Your task to perform on an android device: Open maps Image 0: 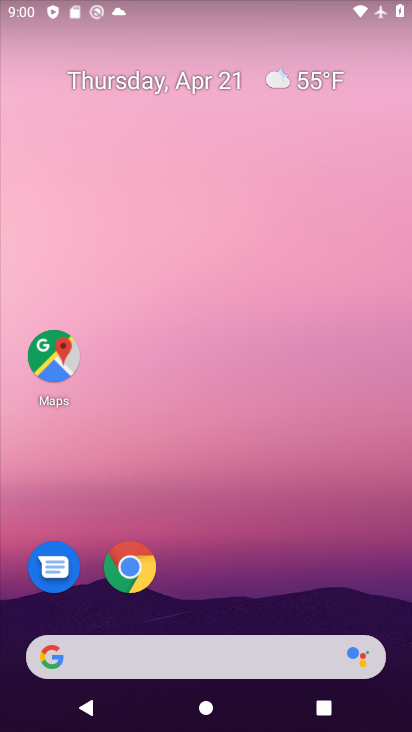
Step 0: click (44, 351)
Your task to perform on an android device: Open maps Image 1: 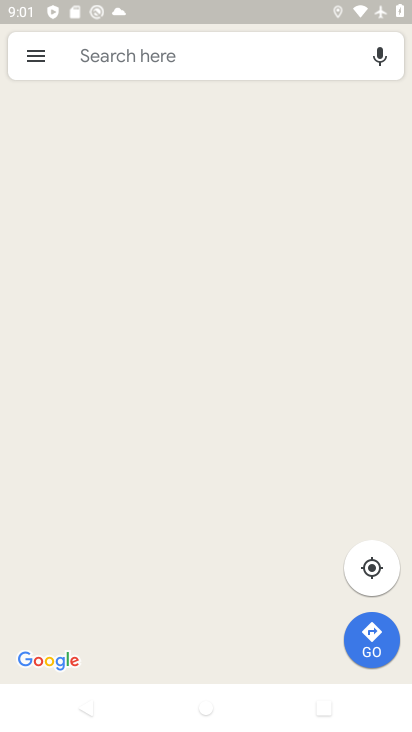
Step 1: task complete